Your task to perform on an android device: turn off javascript in the chrome app Image 0: 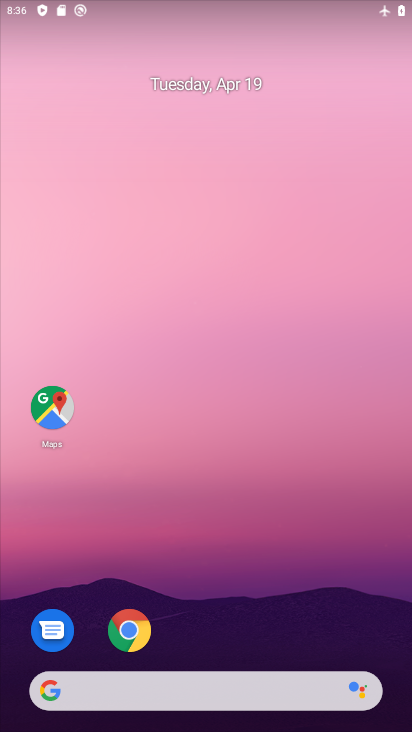
Step 0: click (140, 639)
Your task to perform on an android device: turn off javascript in the chrome app Image 1: 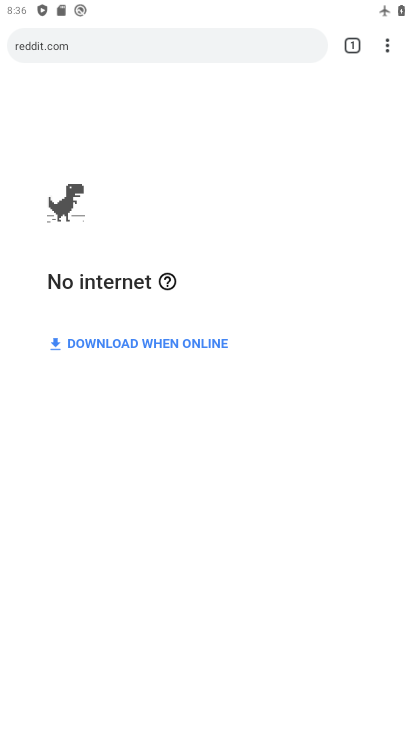
Step 1: click (389, 51)
Your task to perform on an android device: turn off javascript in the chrome app Image 2: 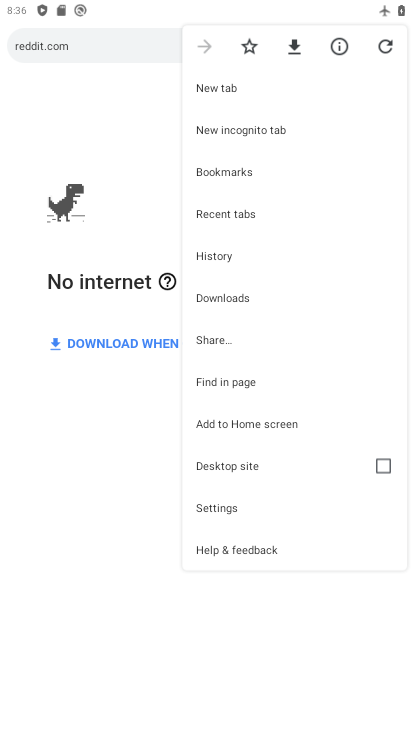
Step 2: click (246, 513)
Your task to perform on an android device: turn off javascript in the chrome app Image 3: 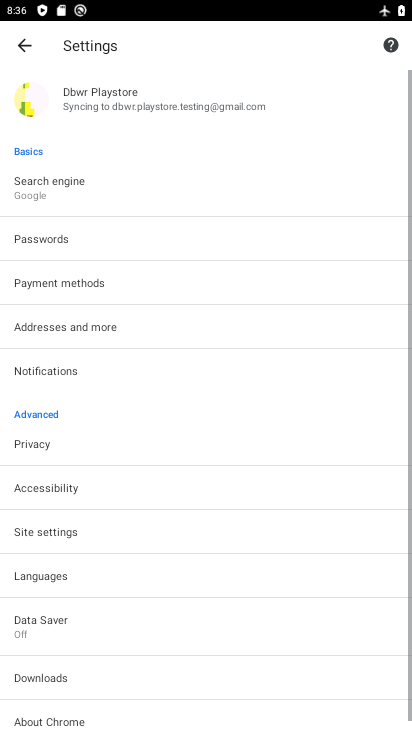
Step 3: drag from (181, 556) to (236, 253)
Your task to perform on an android device: turn off javascript in the chrome app Image 4: 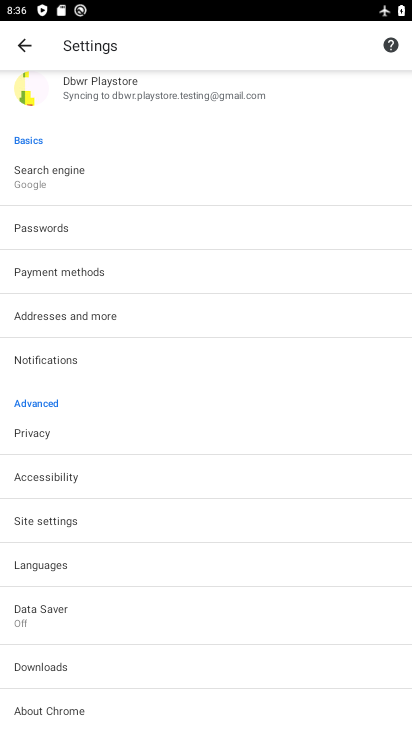
Step 4: click (132, 518)
Your task to perform on an android device: turn off javascript in the chrome app Image 5: 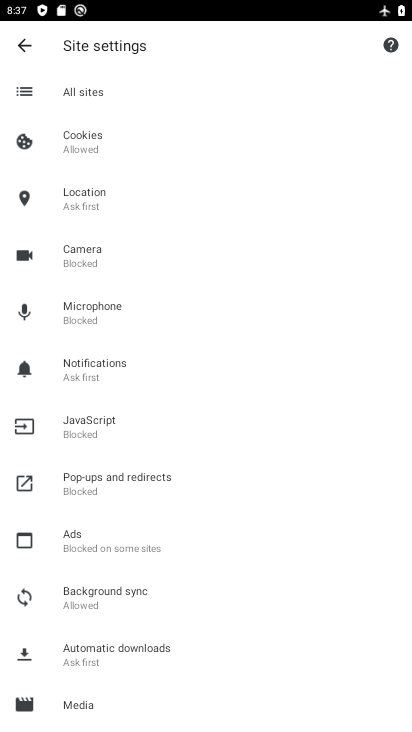
Step 5: click (161, 441)
Your task to perform on an android device: turn off javascript in the chrome app Image 6: 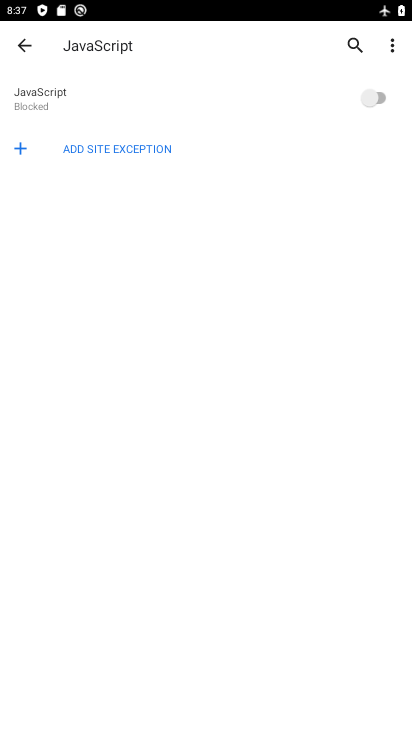
Step 6: task complete